Your task to perform on an android device: set the stopwatch Image 0: 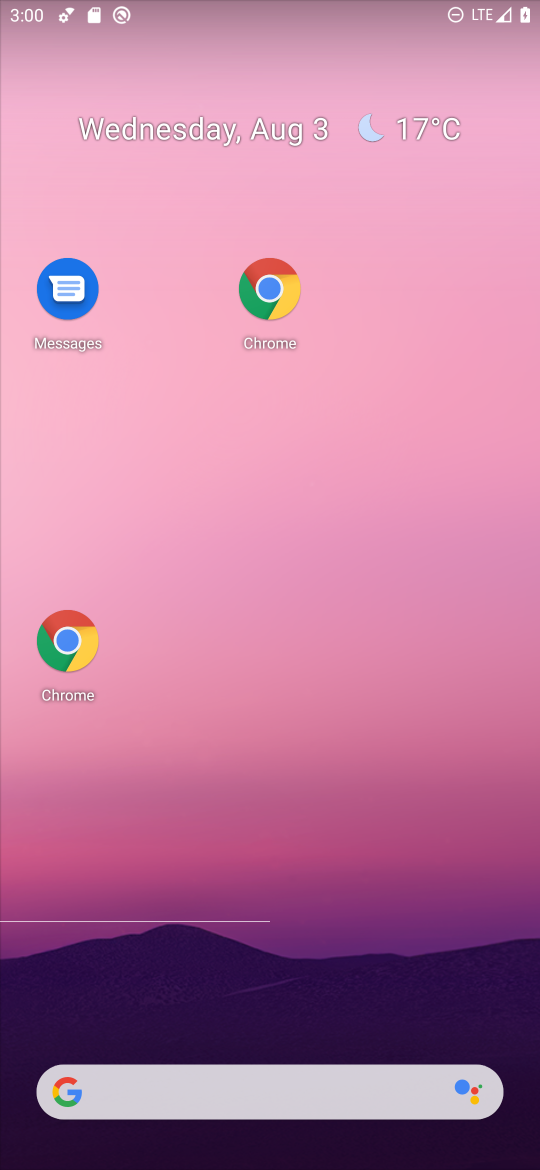
Step 0: drag from (296, 1035) to (358, 22)
Your task to perform on an android device: set the stopwatch Image 1: 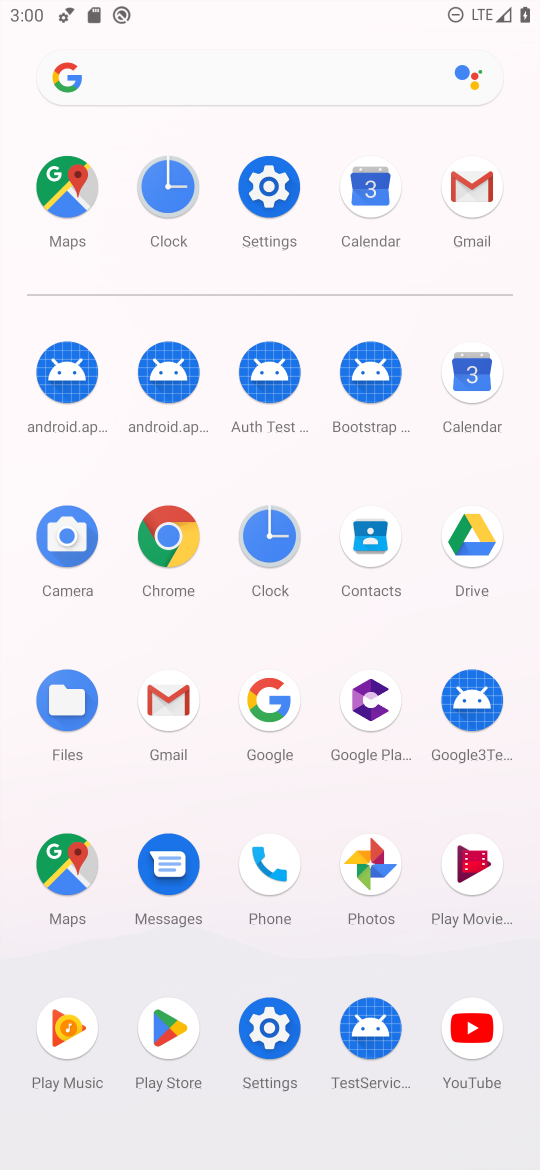
Step 1: click (299, 1046)
Your task to perform on an android device: set the stopwatch Image 2: 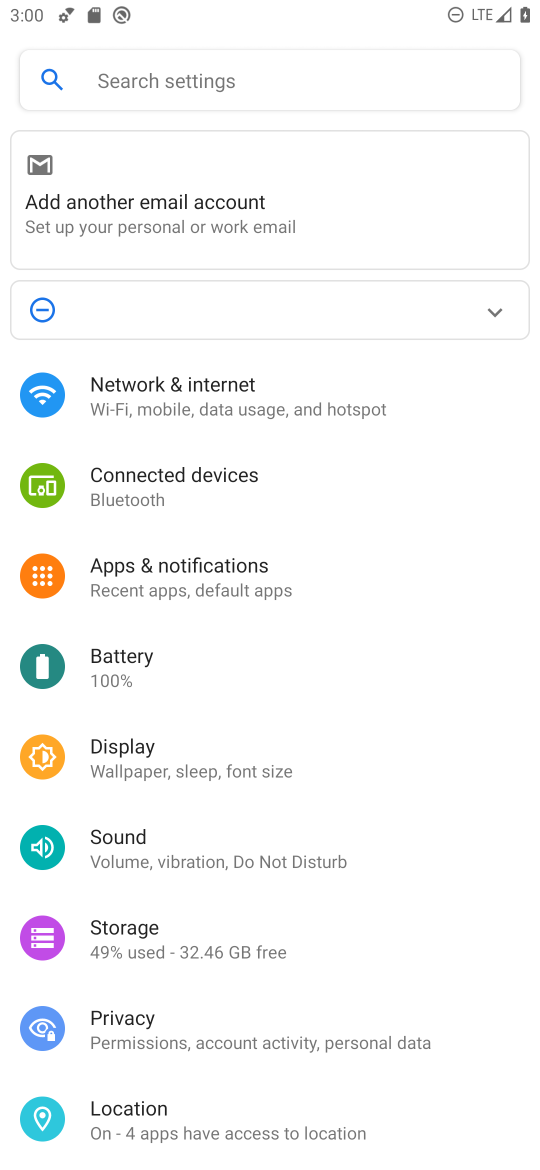
Step 2: task complete